Your task to perform on an android device: Open Yahoo.com Image 0: 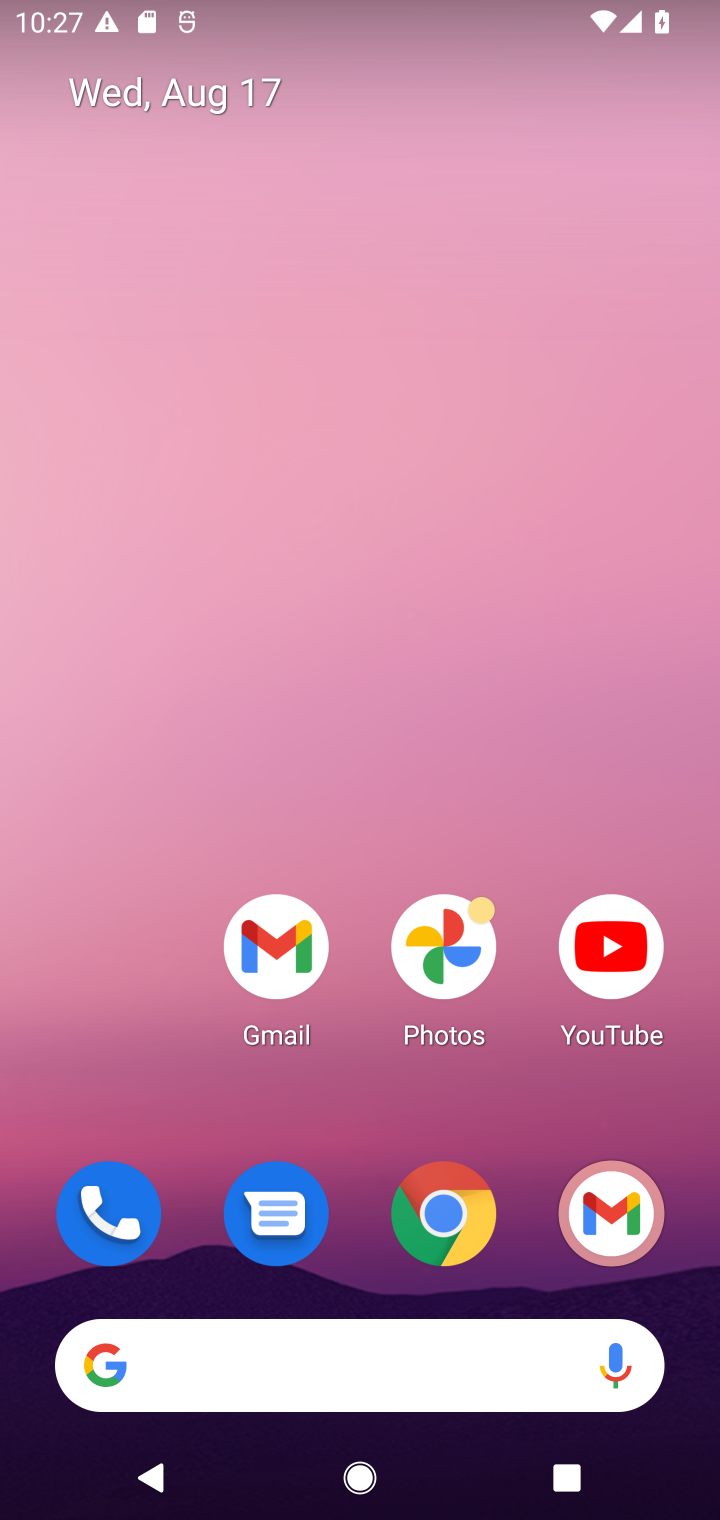
Step 0: drag from (522, 804) to (414, 28)
Your task to perform on an android device: Open Yahoo.com Image 1: 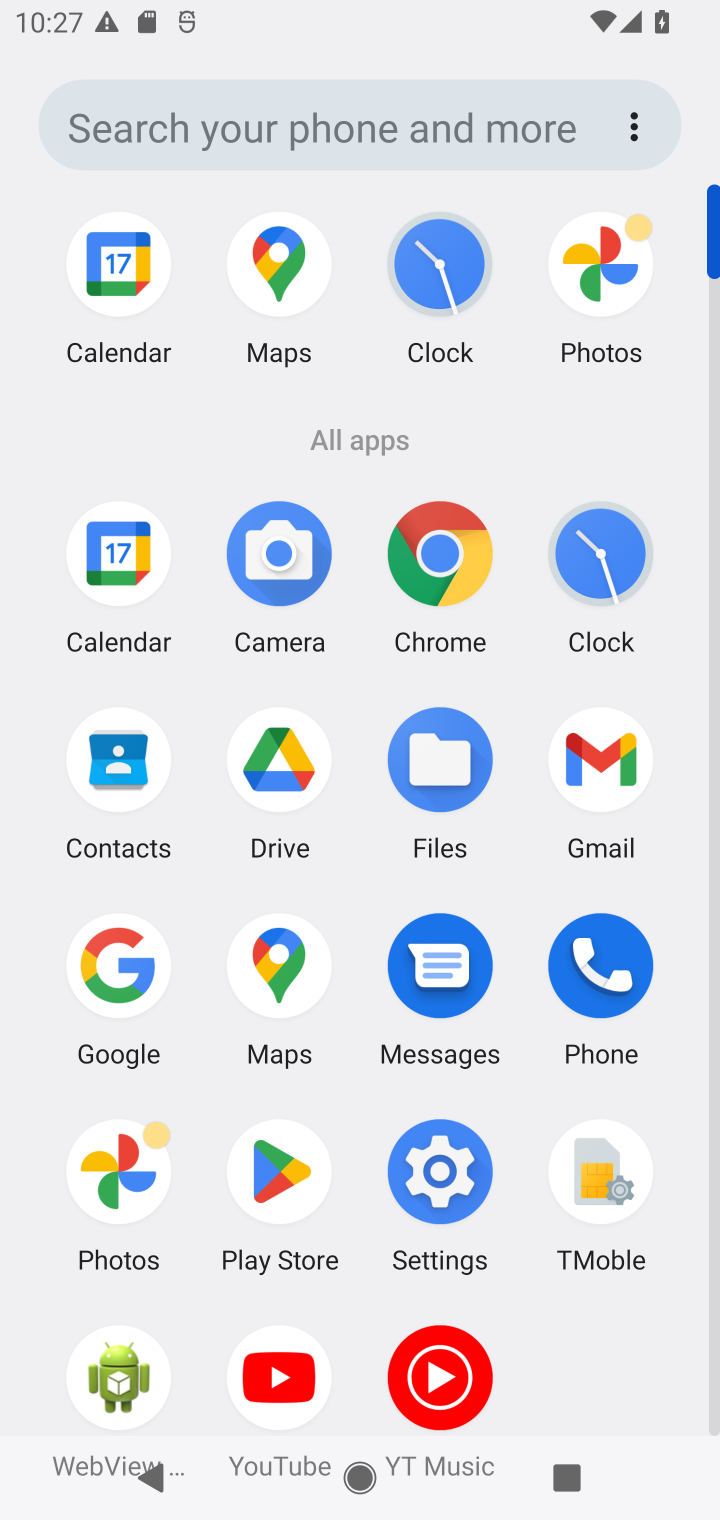
Step 1: click (118, 945)
Your task to perform on an android device: Open Yahoo.com Image 2: 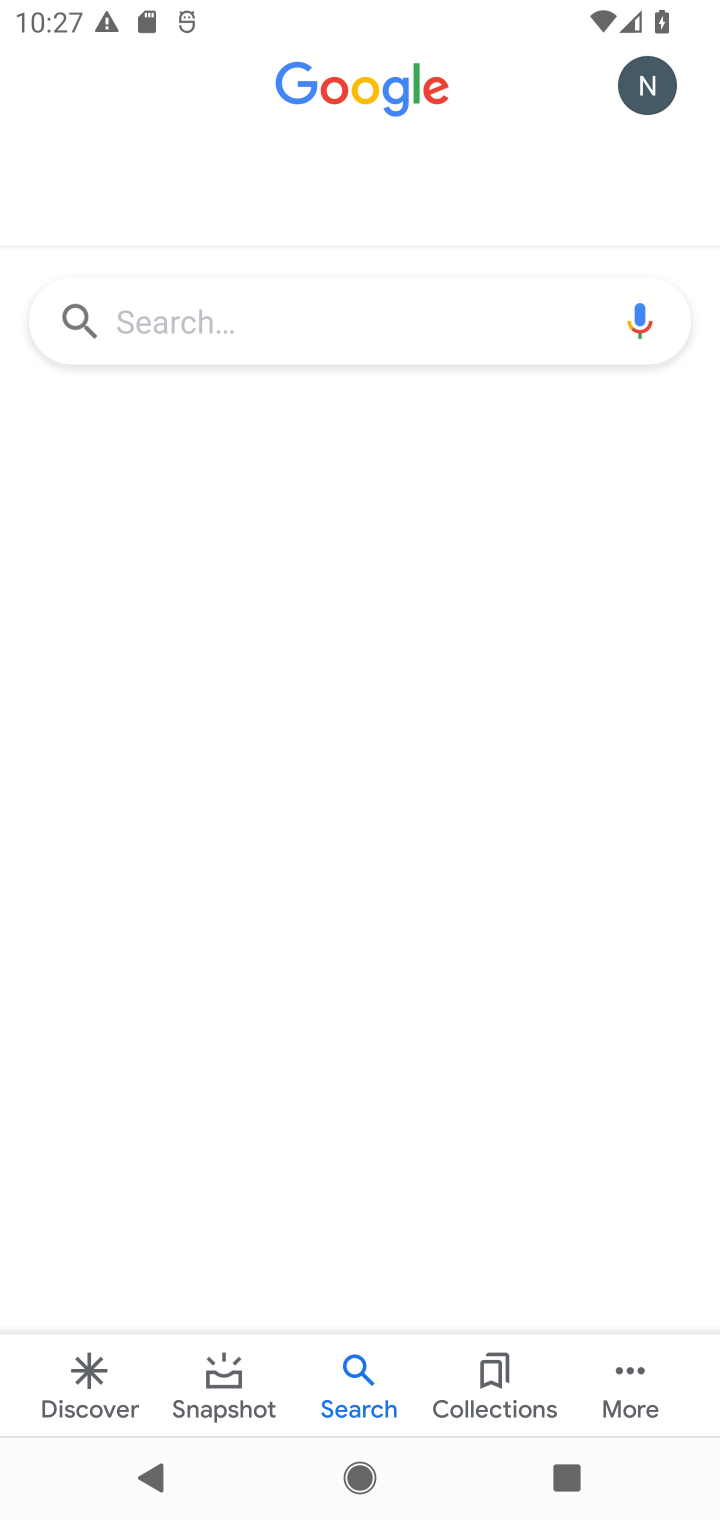
Step 2: click (302, 348)
Your task to perform on an android device: Open Yahoo.com Image 3: 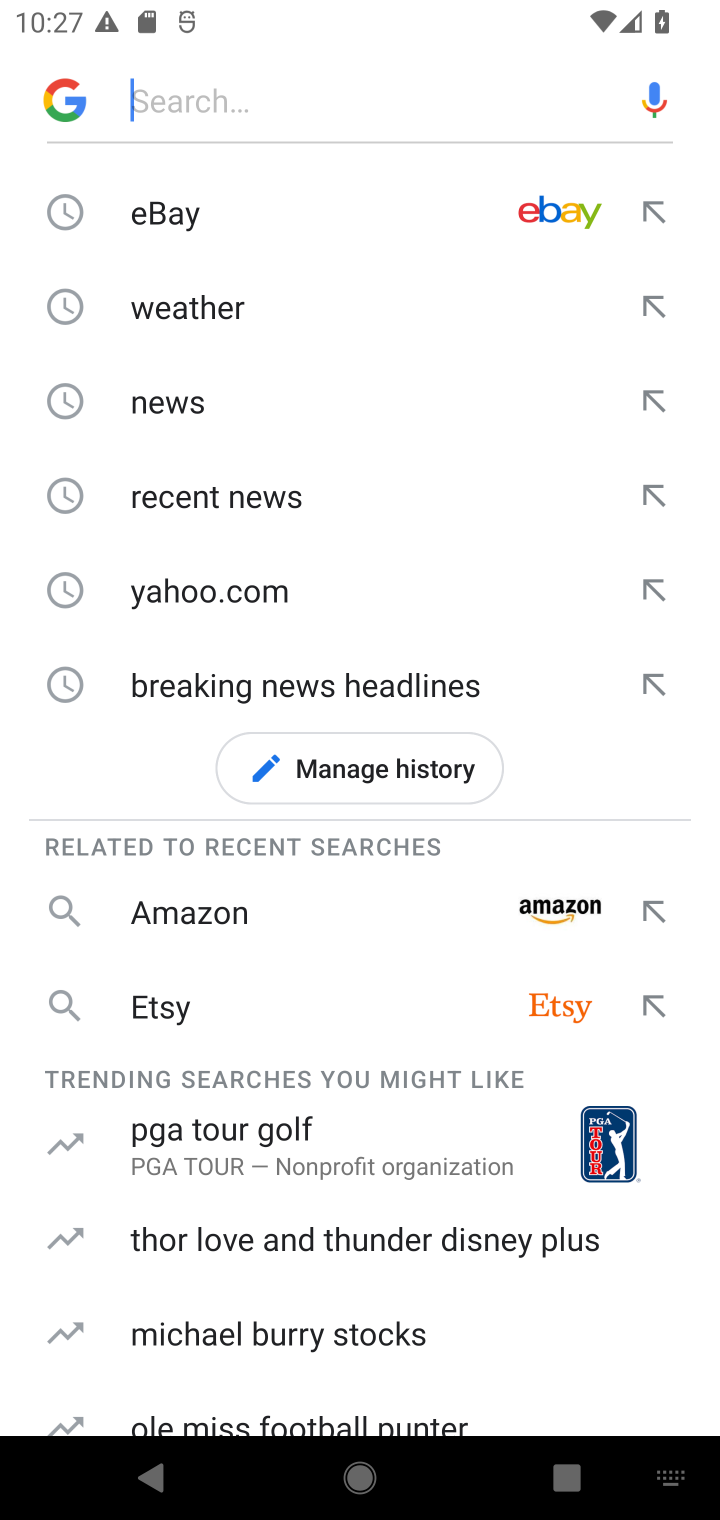
Step 3: type "Yahoo.com"
Your task to perform on an android device: Open Yahoo.com Image 4: 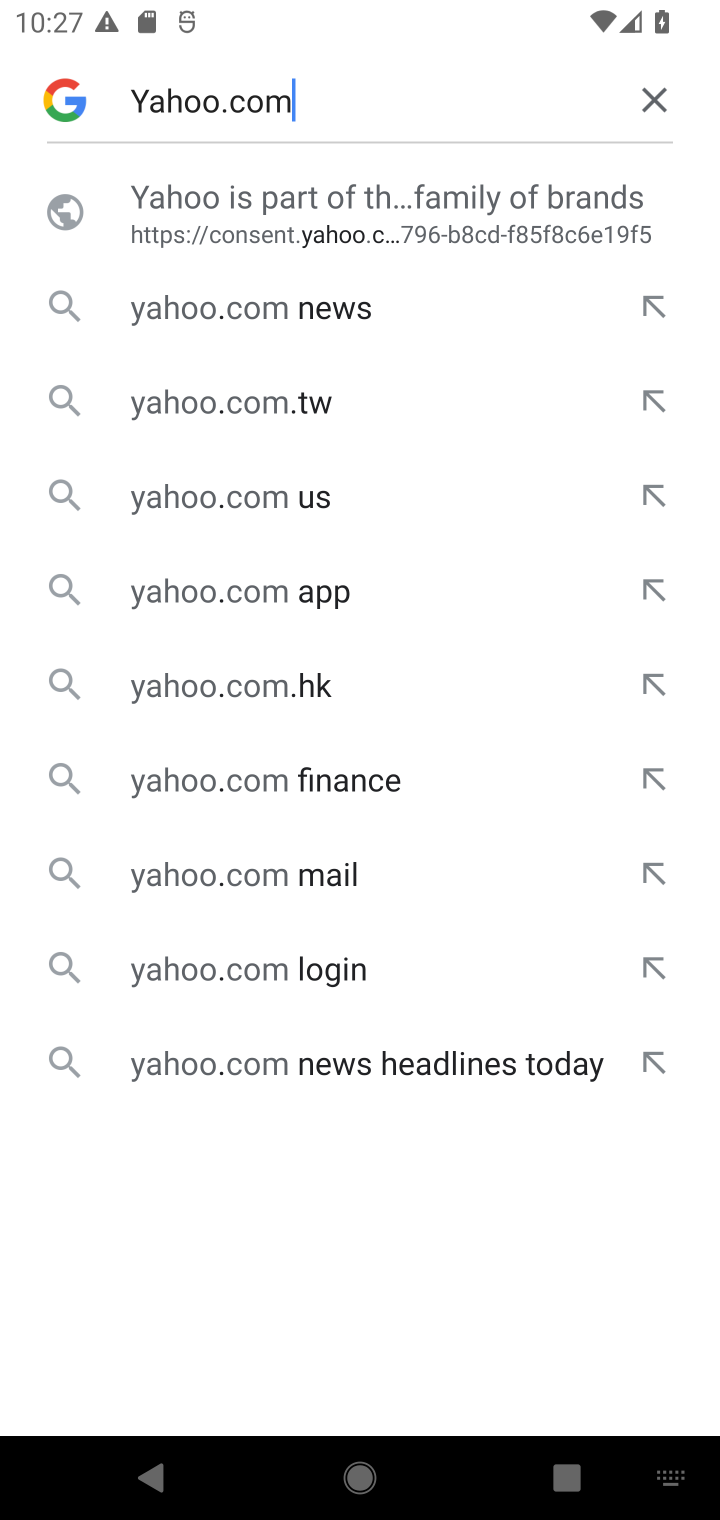
Step 4: click (181, 187)
Your task to perform on an android device: Open Yahoo.com Image 5: 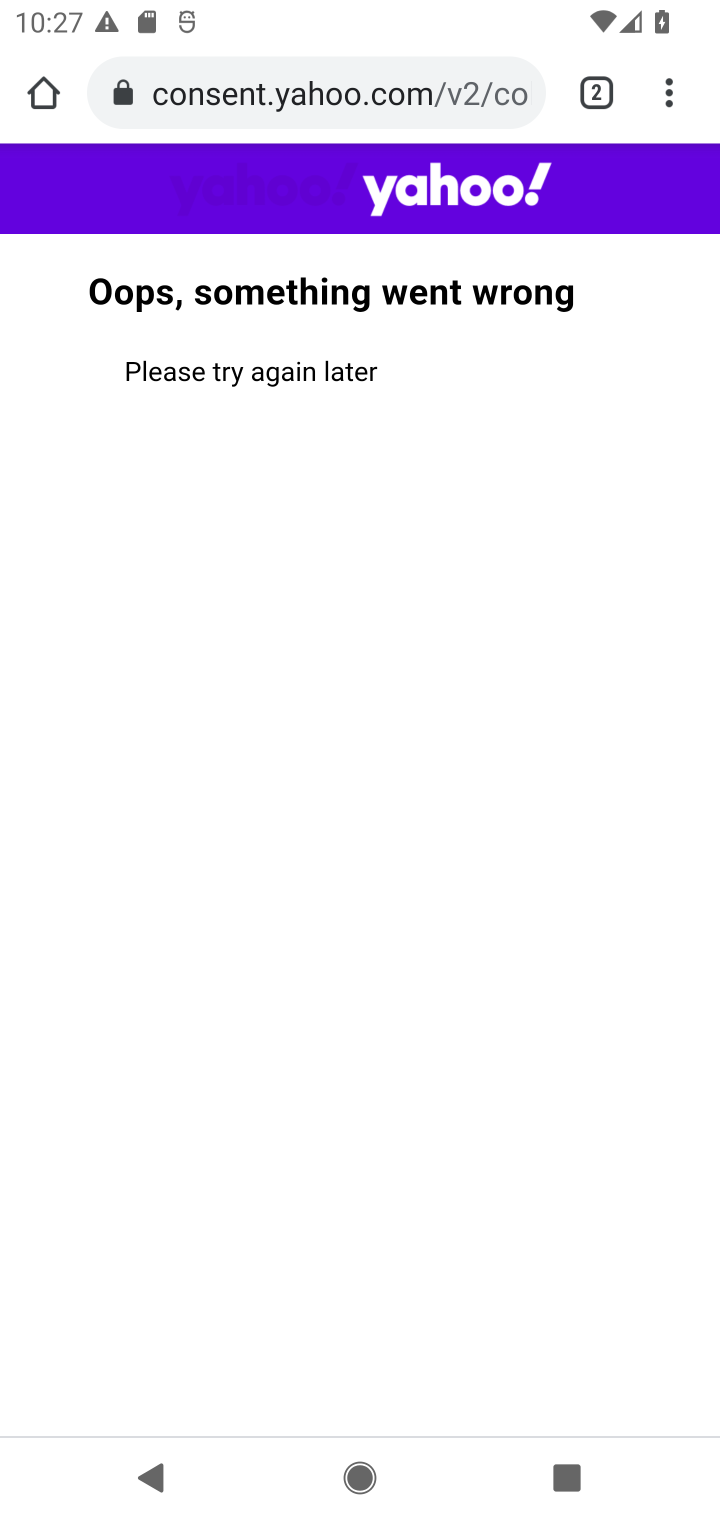
Step 5: task complete